Your task to perform on an android device: Open maps Image 0: 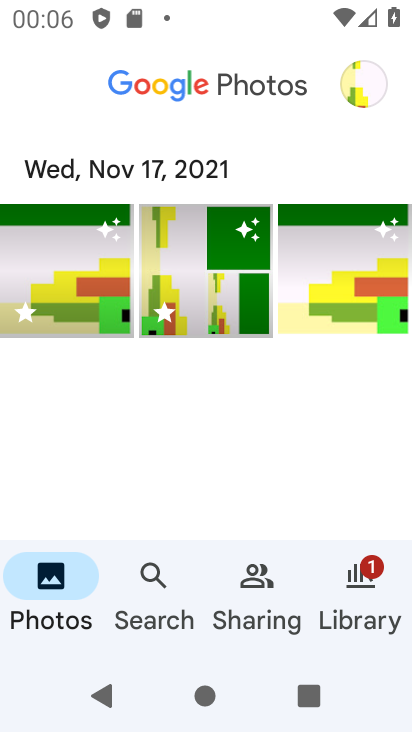
Step 0: press home button
Your task to perform on an android device: Open maps Image 1: 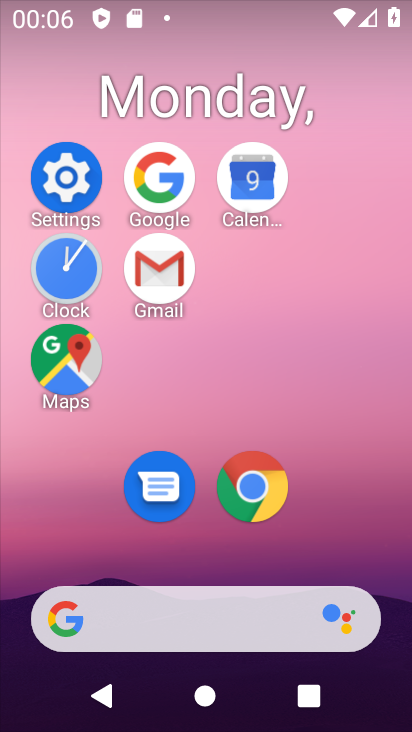
Step 1: click (65, 357)
Your task to perform on an android device: Open maps Image 2: 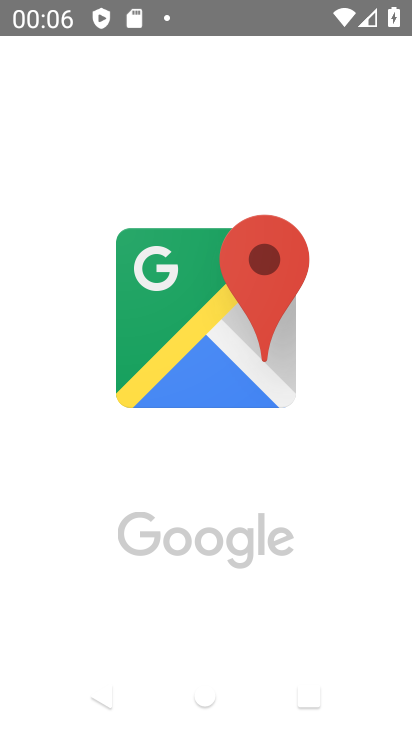
Step 2: task complete